Your task to perform on an android device: toggle sleep mode Image 0: 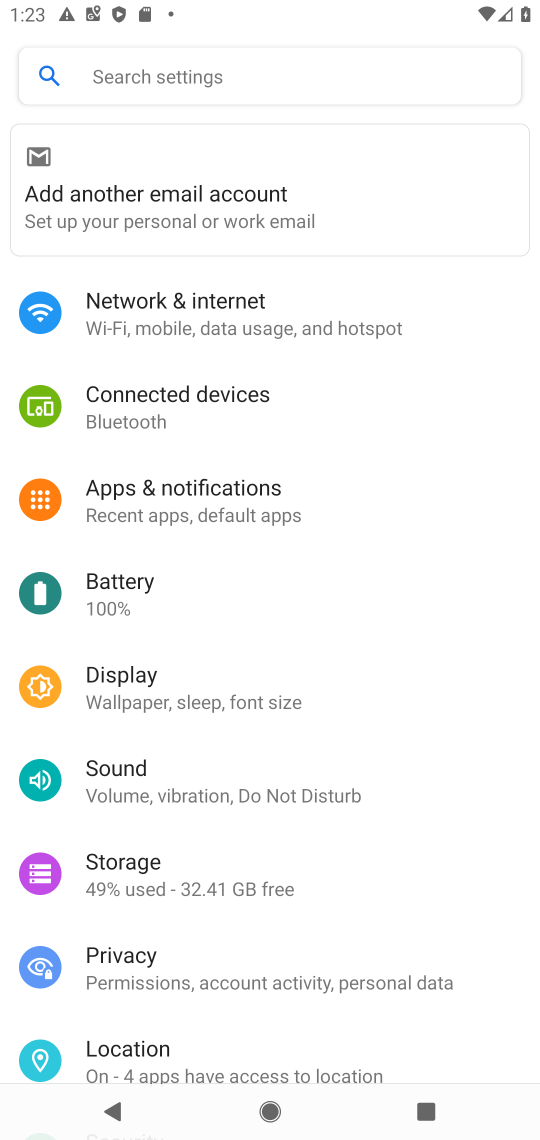
Step 0: press home button
Your task to perform on an android device: toggle sleep mode Image 1: 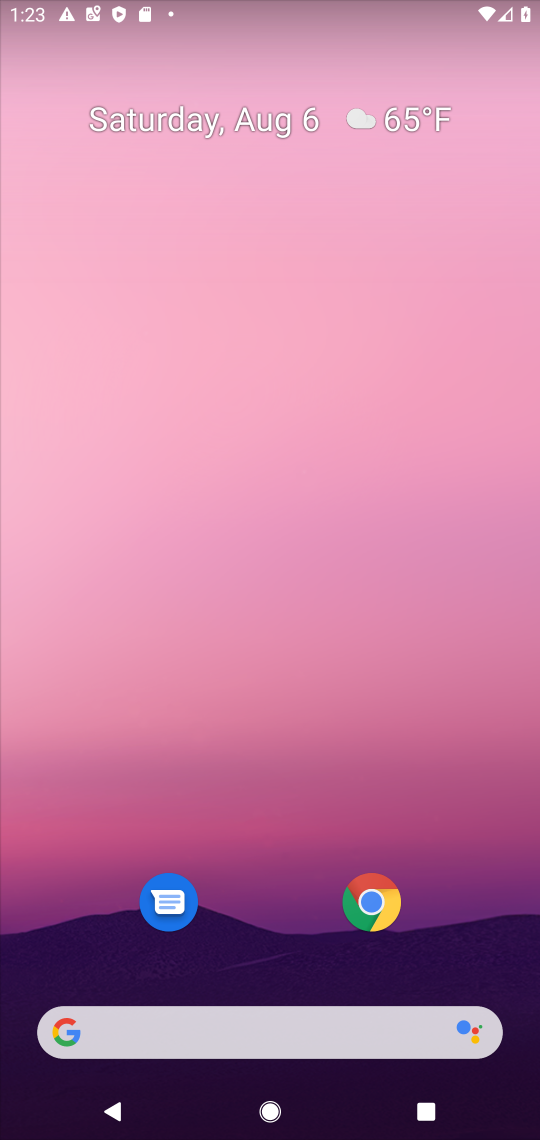
Step 1: drag from (266, 822) to (197, 82)
Your task to perform on an android device: toggle sleep mode Image 2: 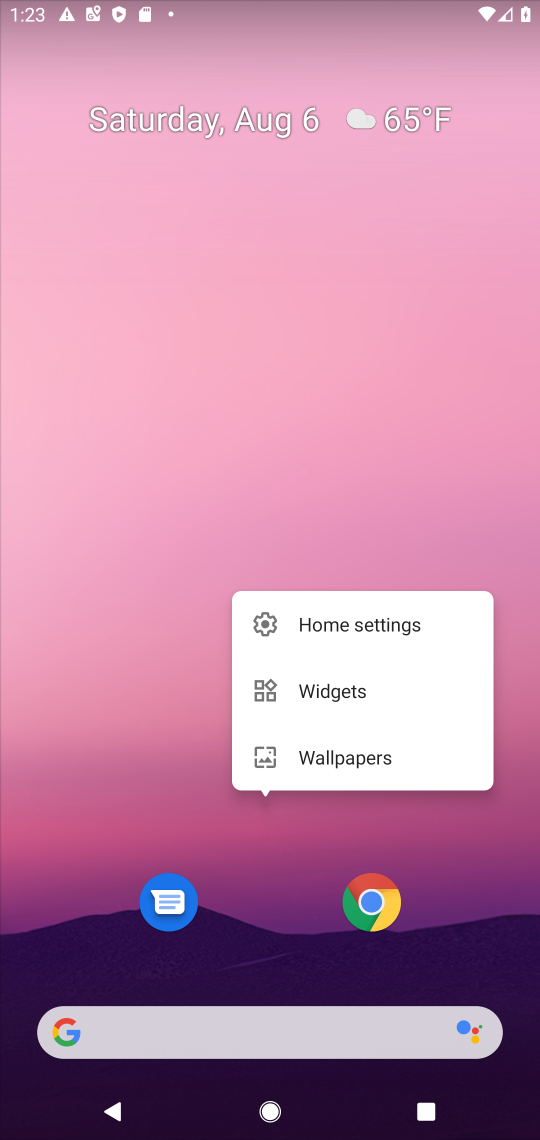
Step 2: click (226, 428)
Your task to perform on an android device: toggle sleep mode Image 3: 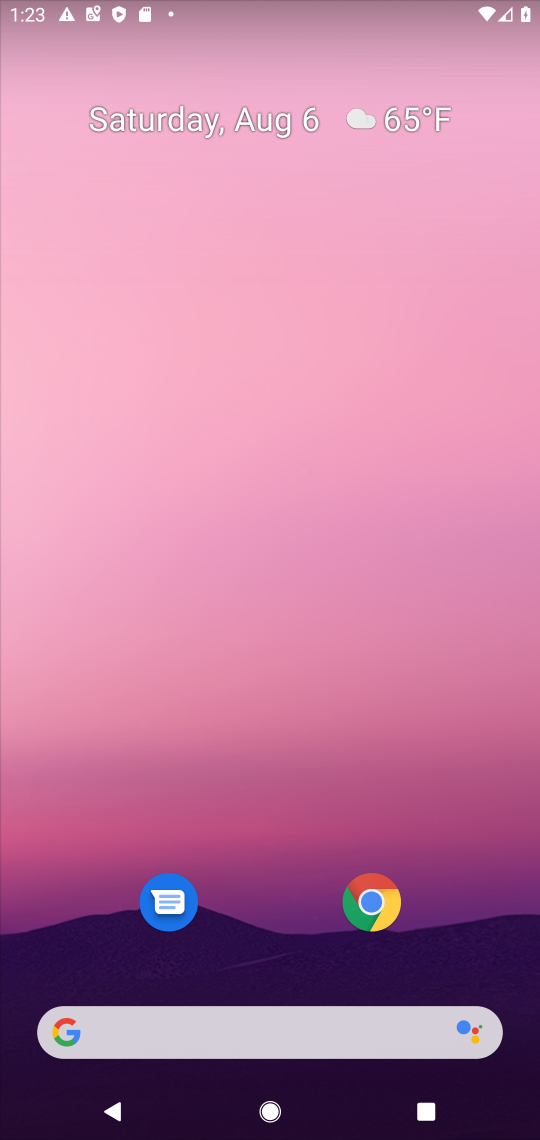
Step 3: drag from (256, 856) to (363, 183)
Your task to perform on an android device: toggle sleep mode Image 4: 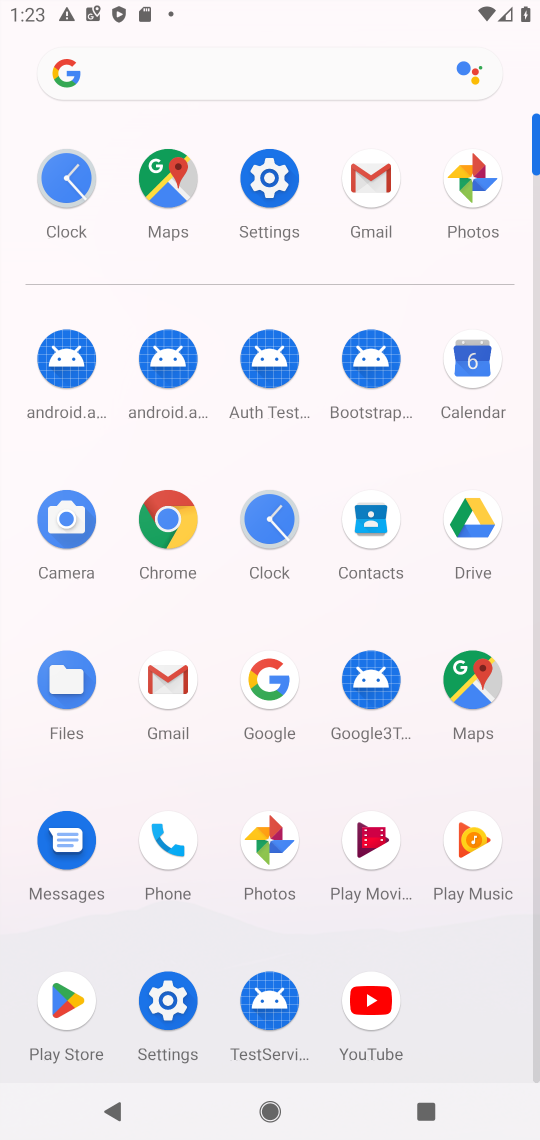
Step 4: click (263, 171)
Your task to perform on an android device: toggle sleep mode Image 5: 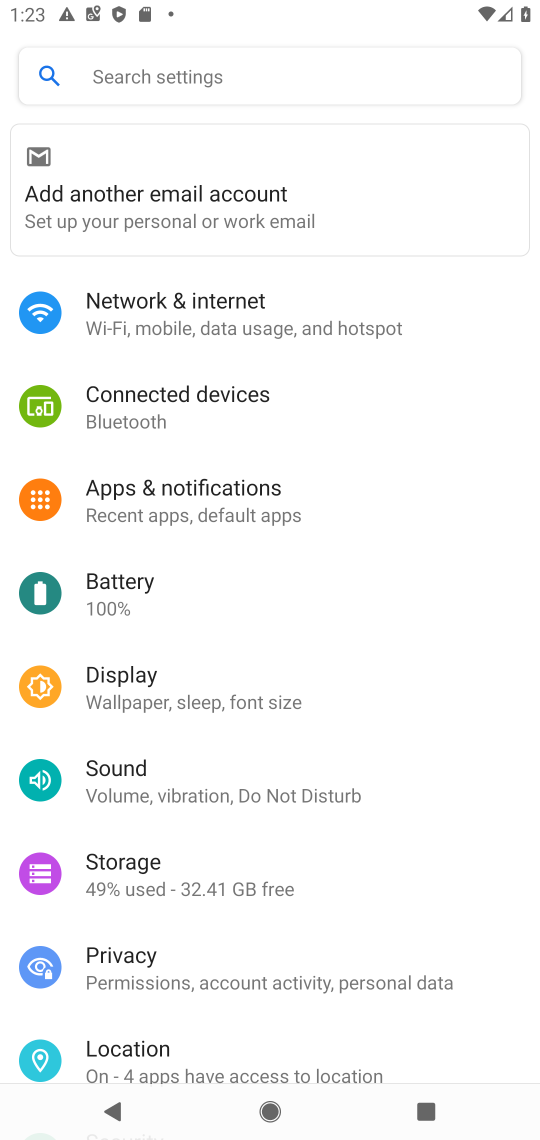
Step 5: click (136, 680)
Your task to perform on an android device: toggle sleep mode Image 6: 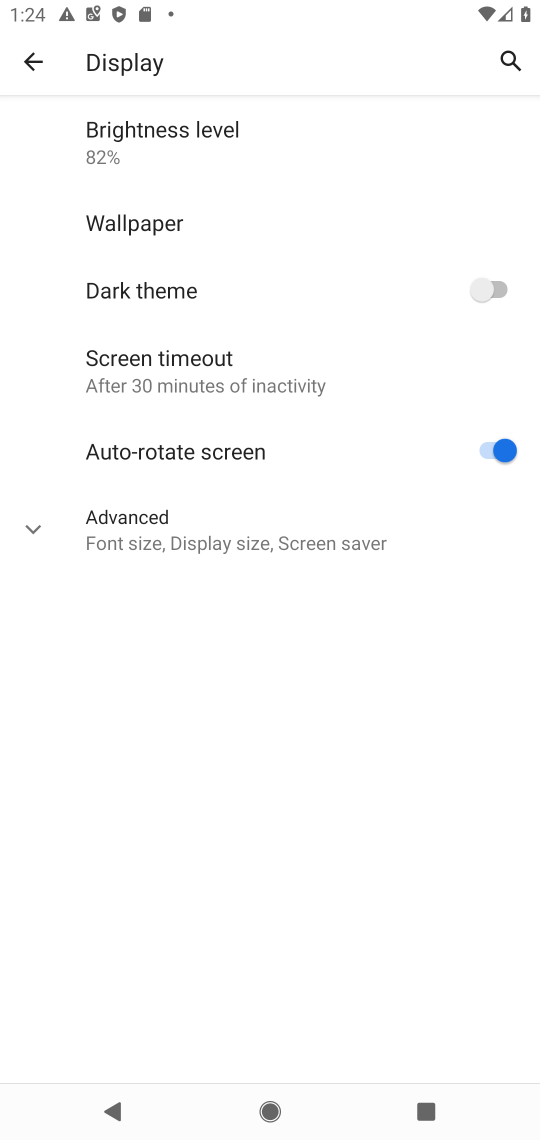
Step 6: task complete